Your task to perform on an android device: clear history in the chrome app Image 0: 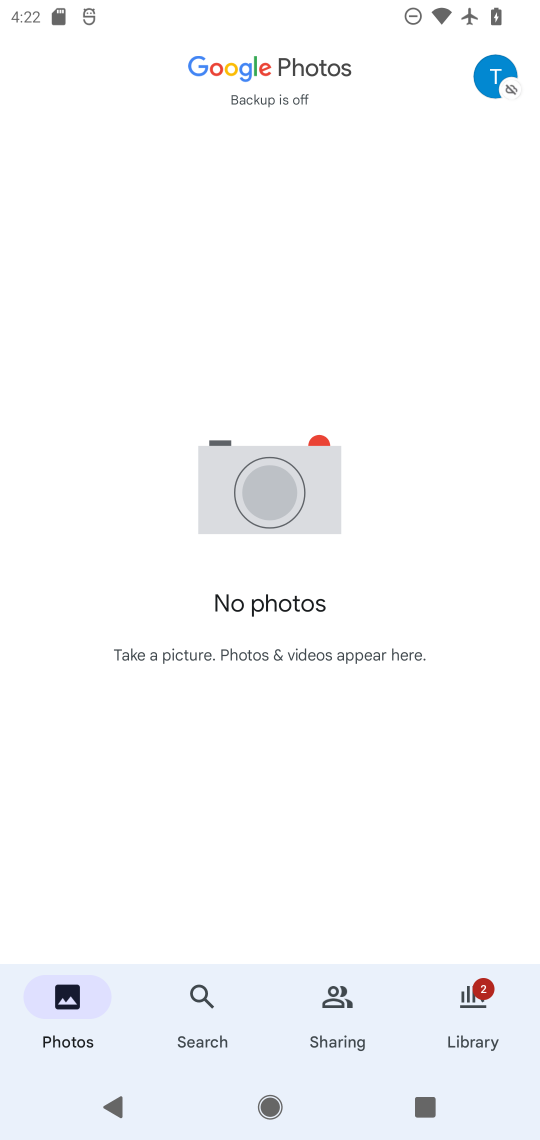
Step 0: press home button
Your task to perform on an android device: clear history in the chrome app Image 1: 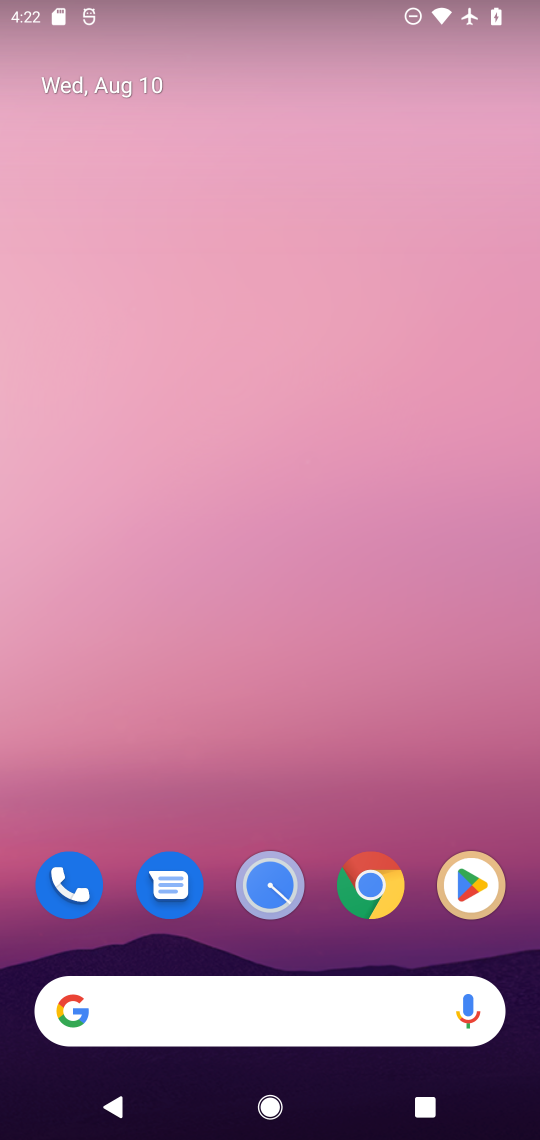
Step 1: click (373, 887)
Your task to perform on an android device: clear history in the chrome app Image 2: 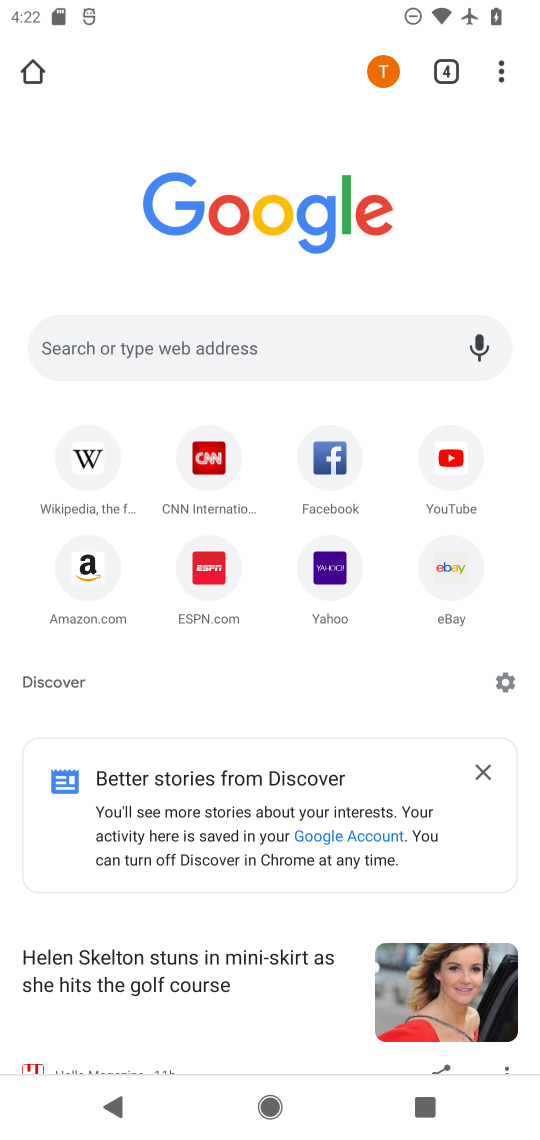
Step 2: click (506, 68)
Your task to perform on an android device: clear history in the chrome app Image 3: 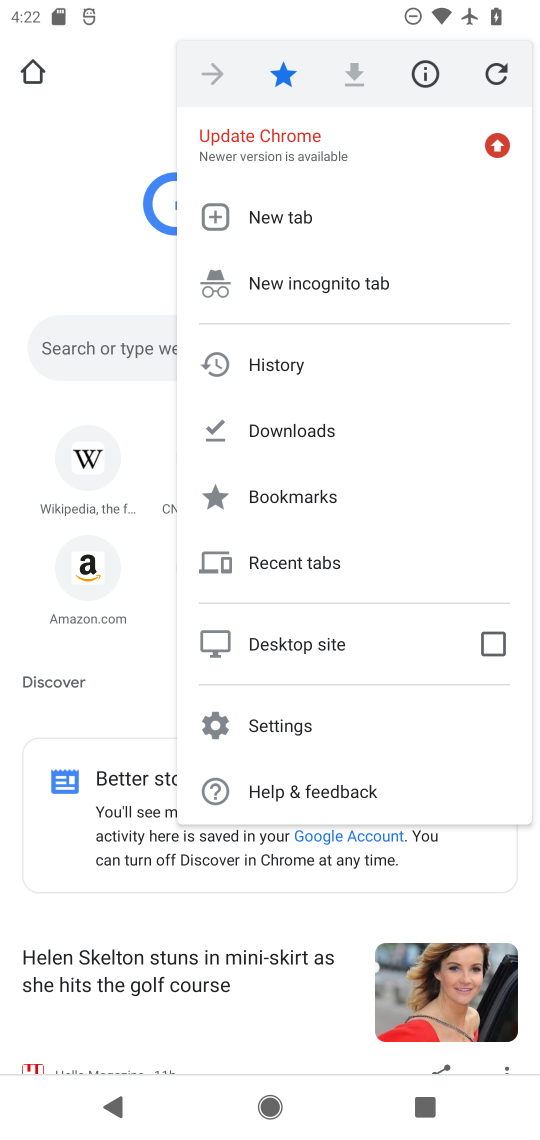
Step 3: click (280, 364)
Your task to perform on an android device: clear history in the chrome app Image 4: 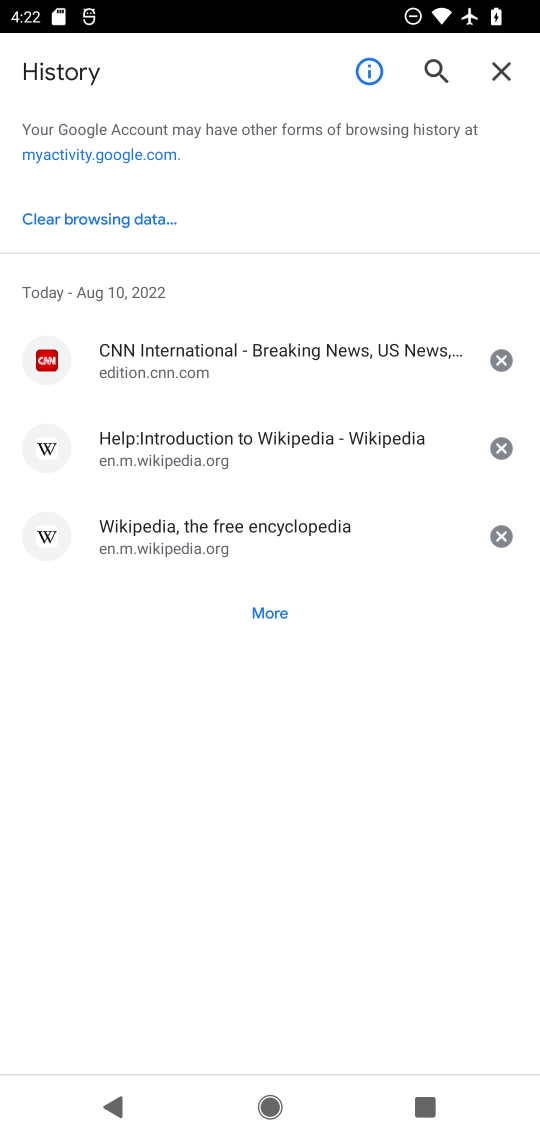
Step 4: click (102, 205)
Your task to perform on an android device: clear history in the chrome app Image 5: 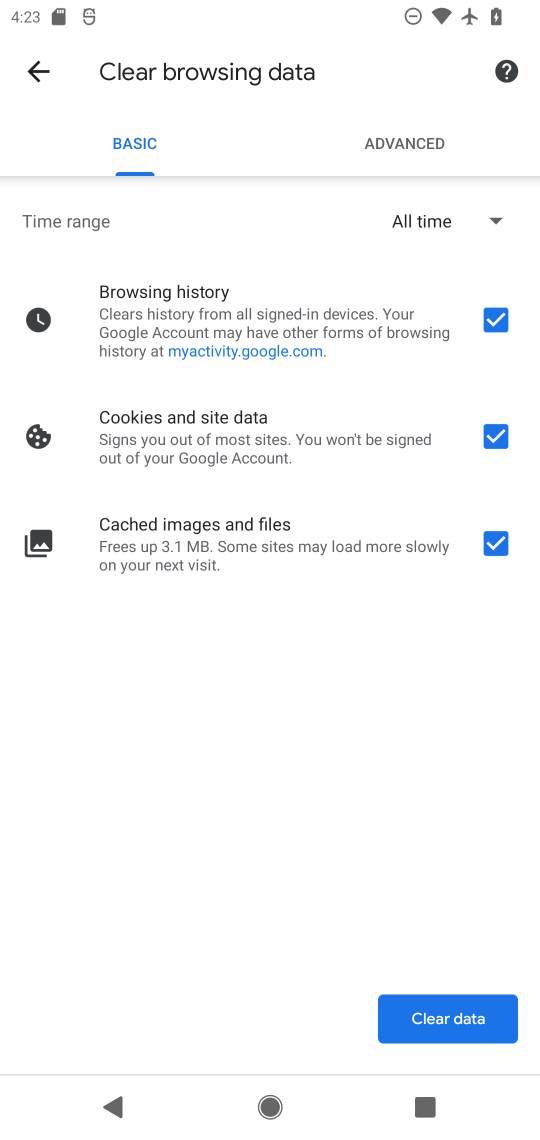
Step 5: click (469, 1021)
Your task to perform on an android device: clear history in the chrome app Image 6: 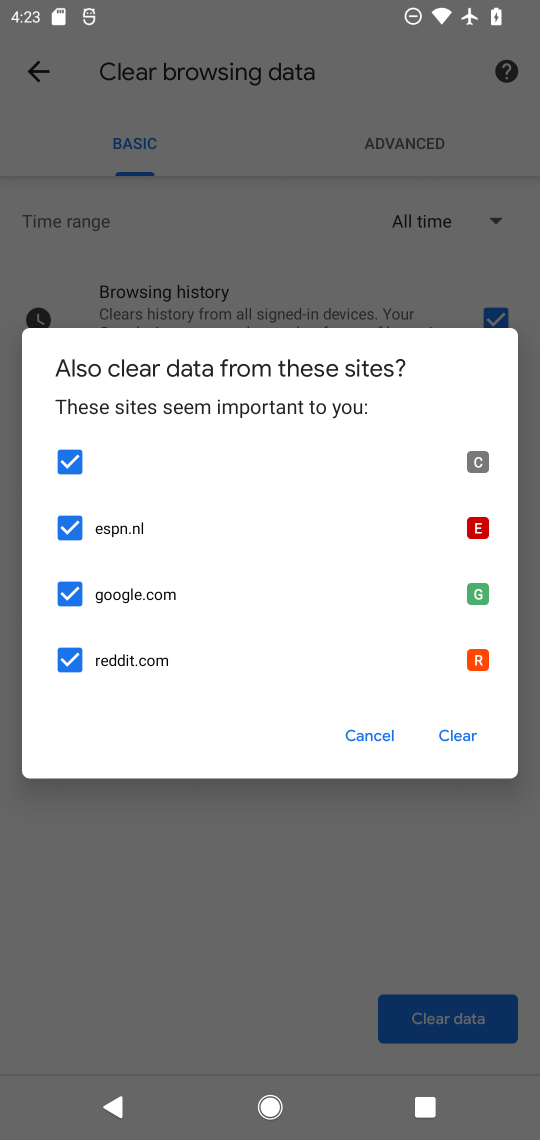
Step 6: click (445, 729)
Your task to perform on an android device: clear history in the chrome app Image 7: 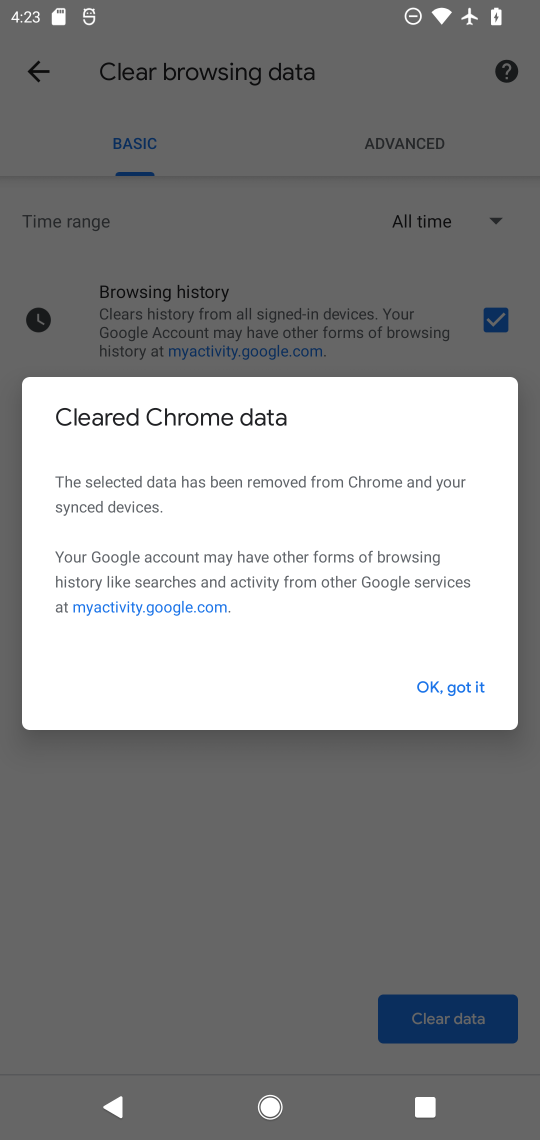
Step 7: click (444, 677)
Your task to perform on an android device: clear history in the chrome app Image 8: 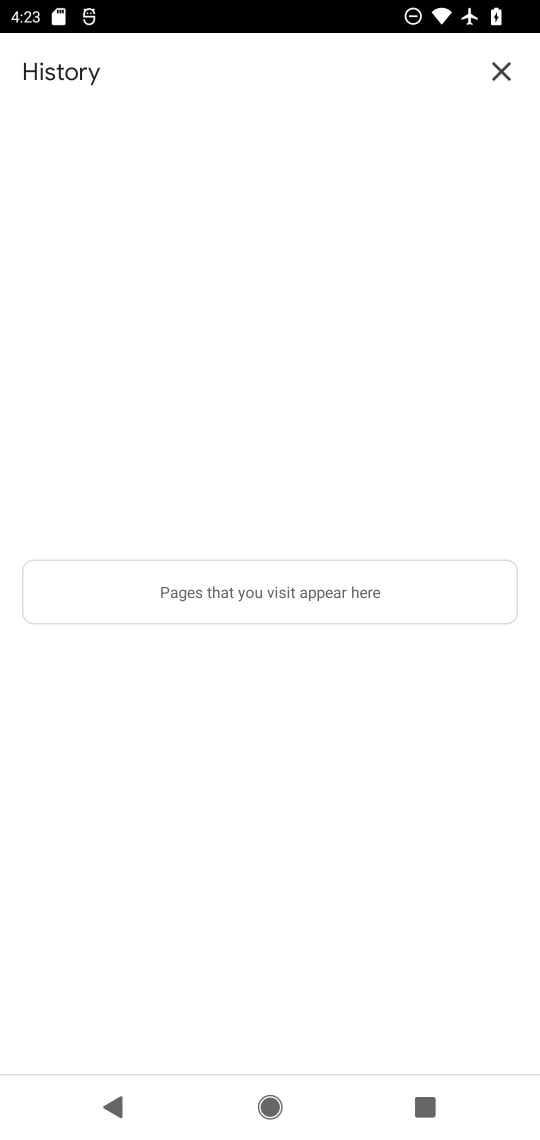
Step 8: task complete